Your task to perform on an android device: Show me popular games on the Play Store Image 0: 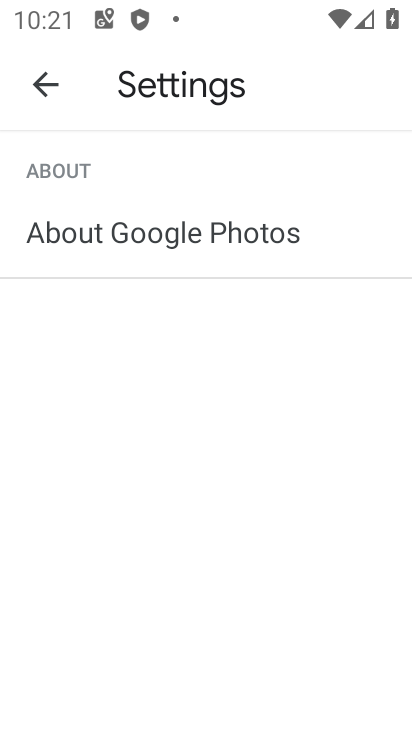
Step 0: press home button
Your task to perform on an android device: Show me popular games on the Play Store Image 1: 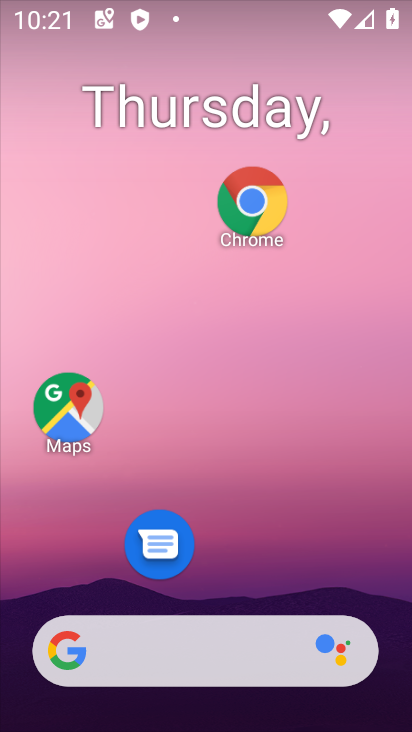
Step 1: drag from (220, 589) to (218, 99)
Your task to perform on an android device: Show me popular games on the Play Store Image 2: 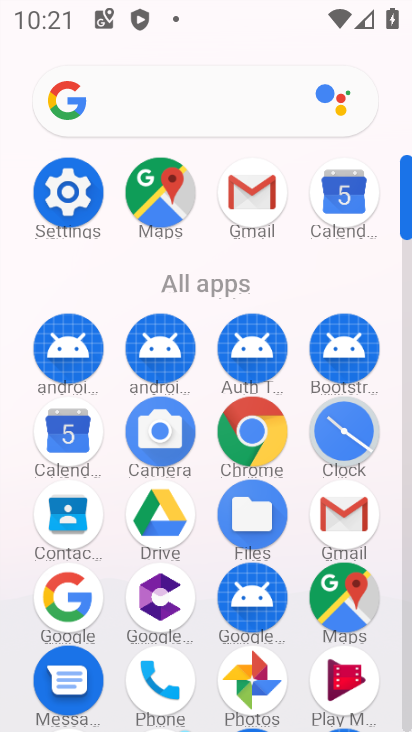
Step 2: drag from (203, 629) to (213, 299)
Your task to perform on an android device: Show me popular games on the Play Store Image 3: 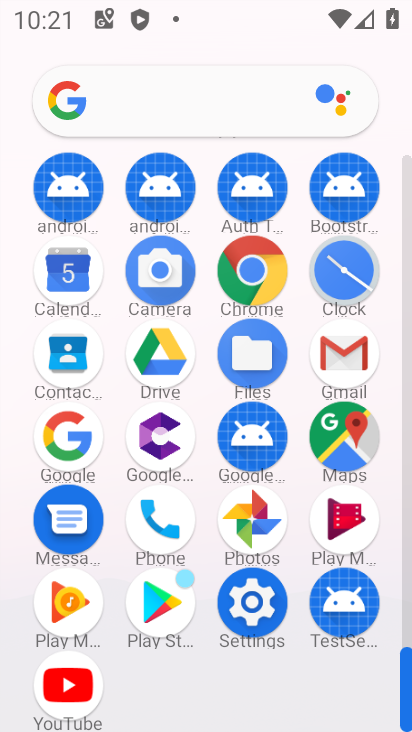
Step 3: click (160, 600)
Your task to perform on an android device: Show me popular games on the Play Store Image 4: 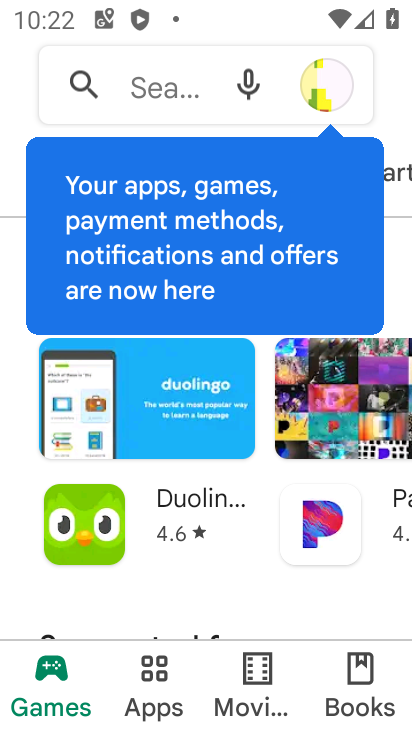
Step 4: drag from (166, 578) to (173, 189)
Your task to perform on an android device: Show me popular games on the Play Store Image 5: 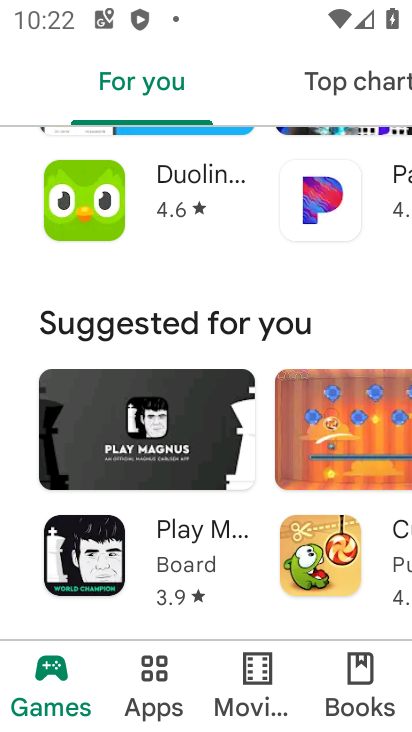
Step 5: drag from (162, 562) to (177, 194)
Your task to perform on an android device: Show me popular games on the Play Store Image 6: 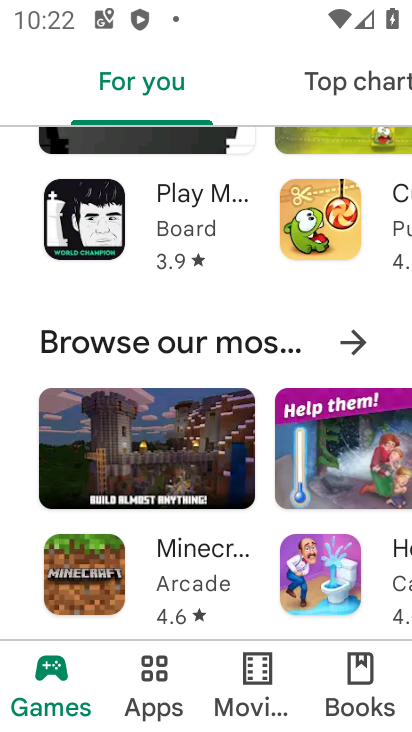
Step 6: drag from (140, 600) to (140, 231)
Your task to perform on an android device: Show me popular games on the Play Store Image 7: 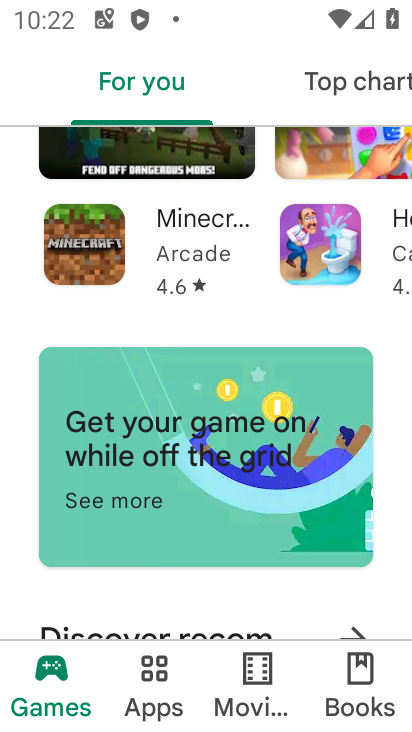
Step 7: drag from (136, 615) to (150, 267)
Your task to perform on an android device: Show me popular games on the Play Store Image 8: 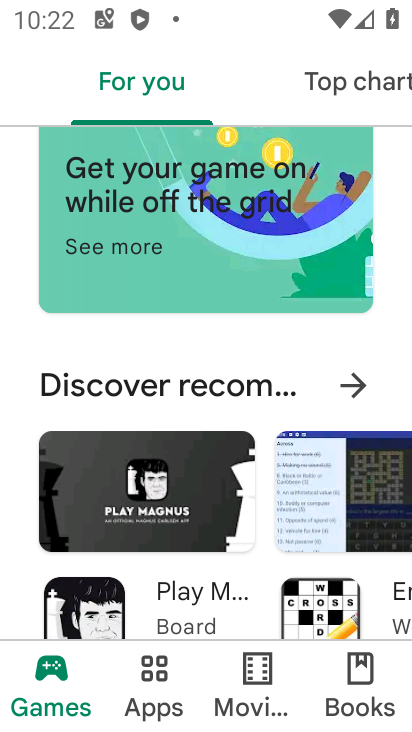
Step 8: drag from (18, 555) to (40, 191)
Your task to perform on an android device: Show me popular games on the Play Store Image 9: 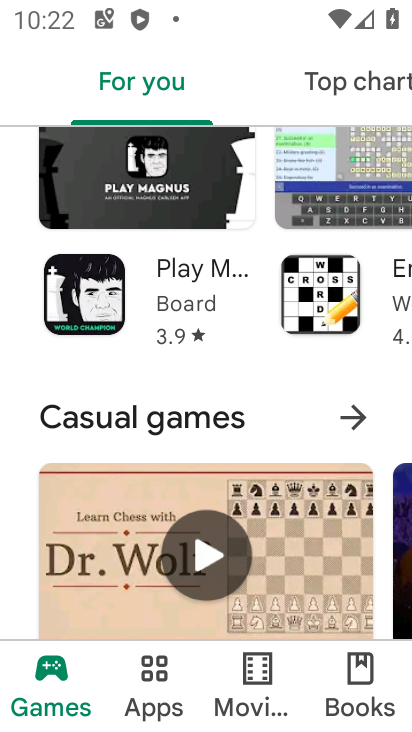
Step 9: drag from (18, 495) to (14, 88)
Your task to perform on an android device: Show me popular games on the Play Store Image 10: 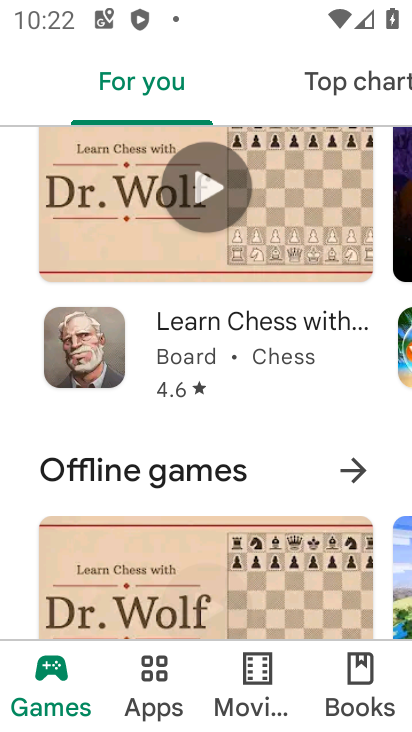
Step 10: drag from (21, 585) to (15, 135)
Your task to perform on an android device: Show me popular games on the Play Store Image 11: 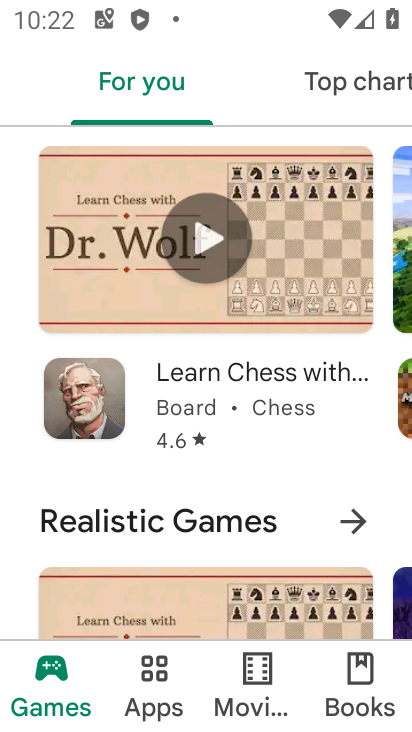
Step 11: drag from (27, 152) to (27, 491)
Your task to perform on an android device: Show me popular games on the Play Store Image 12: 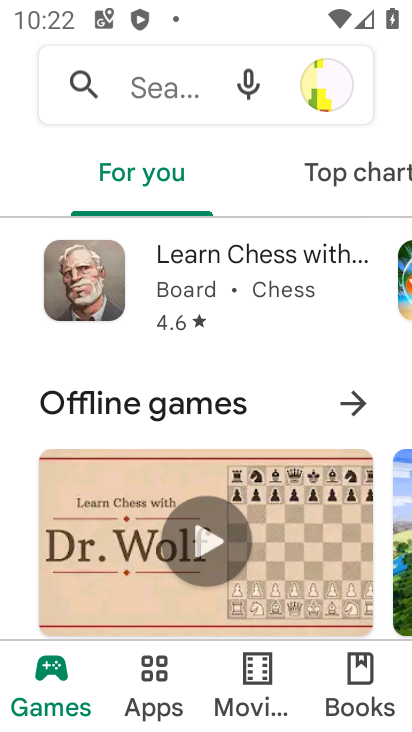
Step 12: drag from (16, 235) to (21, 598)
Your task to perform on an android device: Show me popular games on the Play Store Image 13: 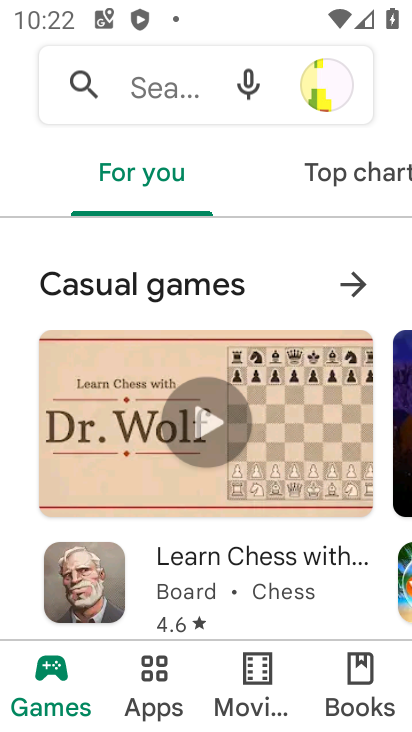
Step 13: drag from (24, 249) to (22, 605)
Your task to perform on an android device: Show me popular games on the Play Store Image 14: 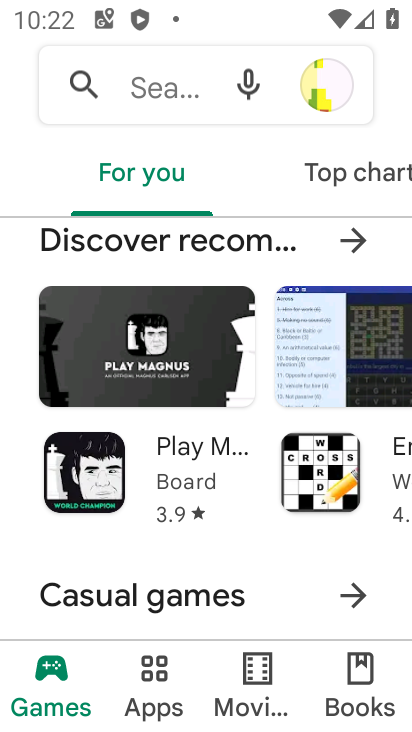
Step 14: drag from (17, 238) to (7, 643)
Your task to perform on an android device: Show me popular games on the Play Store Image 15: 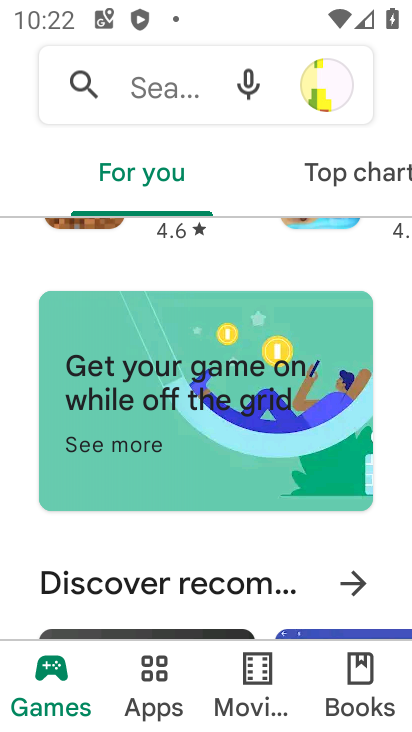
Step 15: drag from (19, 229) to (24, 581)
Your task to perform on an android device: Show me popular games on the Play Store Image 16: 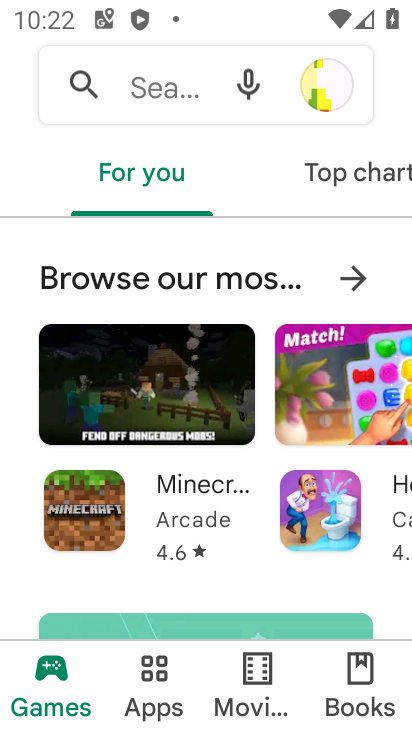
Step 16: drag from (21, 257) to (20, 616)
Your task to perform on an android device: Show me popular games on the Play Store Image 17: 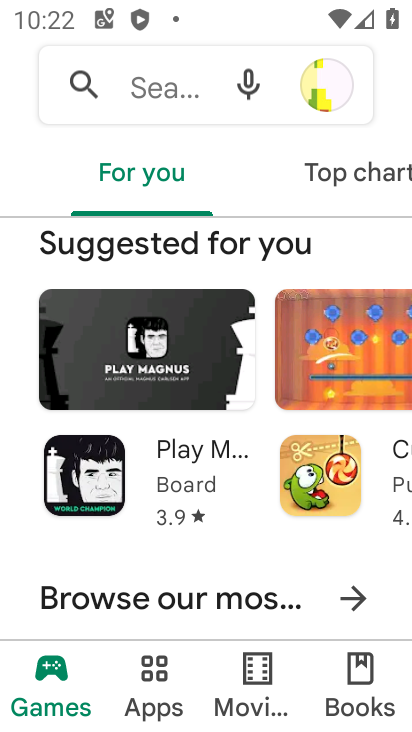
Step 17: drag from (22, 250) to (36, 460)
Your task to perform on an android device: Show me popular games on the Play Store Image 18: 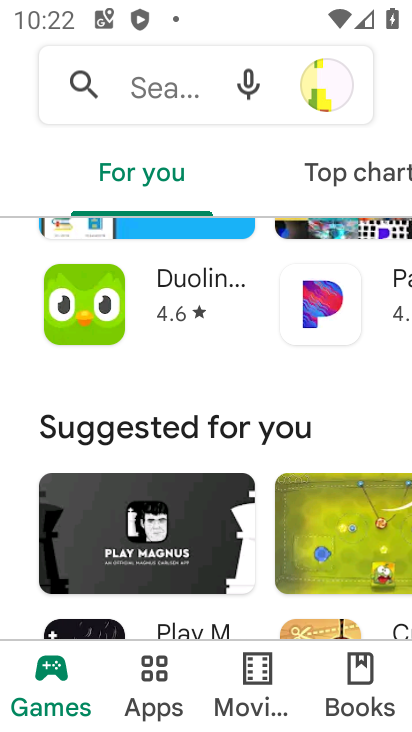
Step 18: drag from (25, 246) to (40, 582)
Your task to perform on an android device: Show me popular games on the Play Store Image 19: 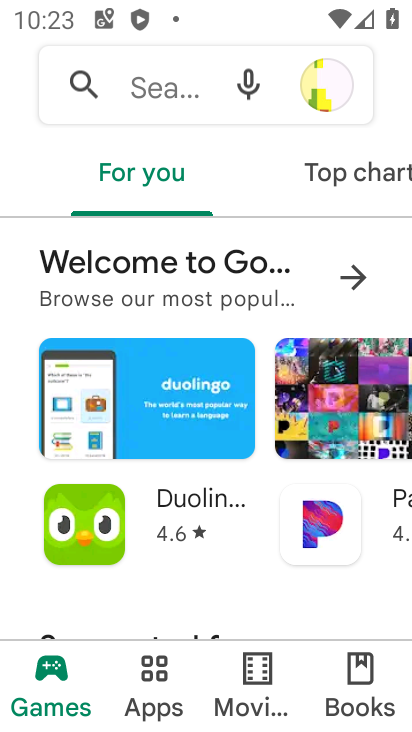
Step 19: drag from (18, 598) to (48, 166)
Your task to perform on an android device: Show me popular games on the Play Store Image 20: 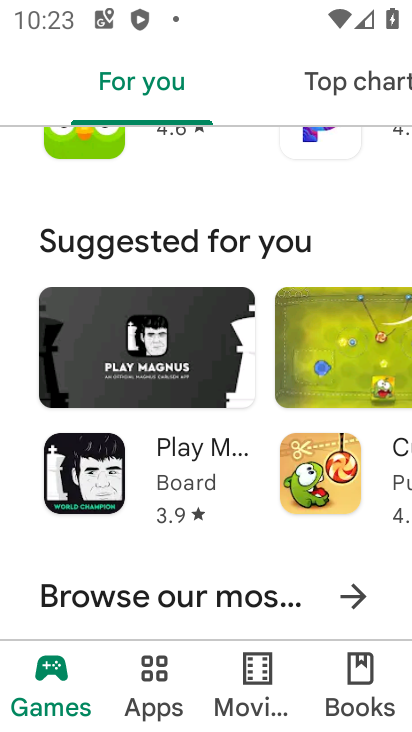
Step 20: drag from (26, 575) to (22, 158)
Your task to perform on an android device: Show me popular games on the Play Store Image 21: 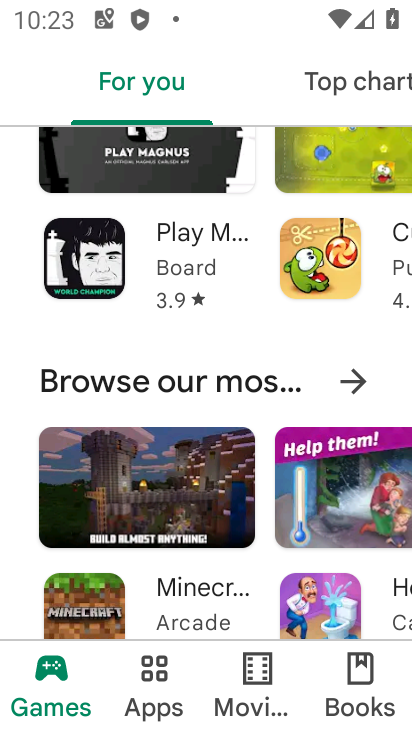
Step 21: drag from (25, 571) to (18, 159)
Your task to perform on an android device: Show me popular games on the Play Store Image 22: 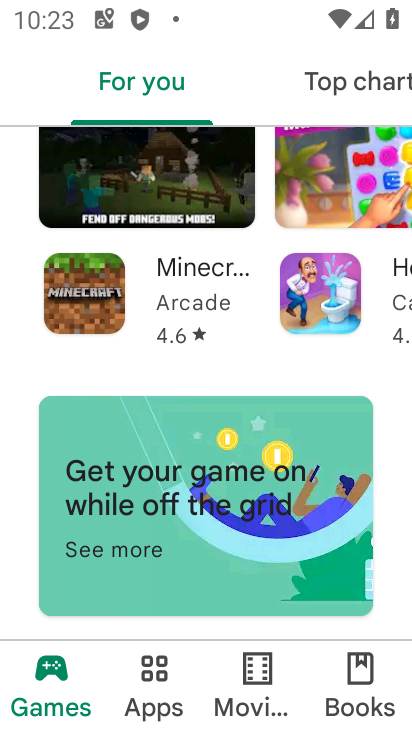
Step 22: drag from (18, 584) to (24, 97)
Your task to perform on an android device: Show me popular games on the Play Store Image 23: 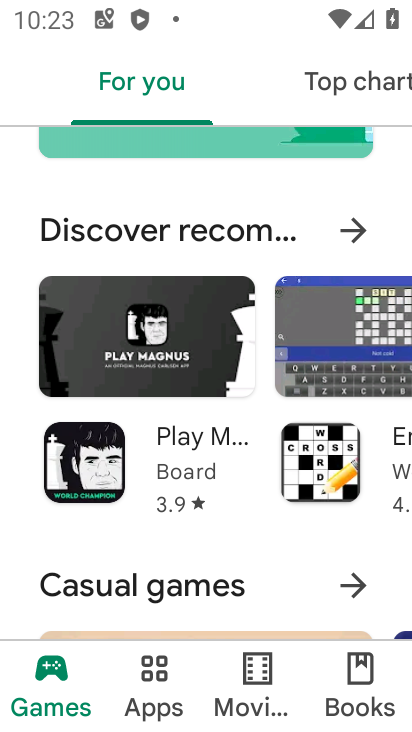
Step 23: drag from (23, 592) to (39, 146)
Your task to perform on an android device: Show me popular games on the Play Store Image 24: 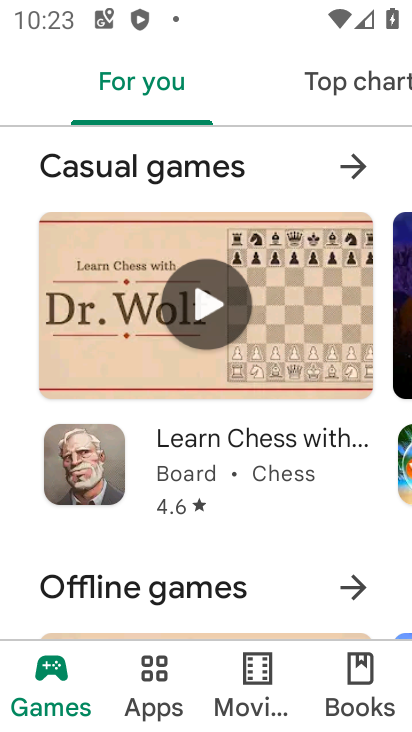
Step 24: drag from (23, 607) to (23, 137)
Your task to perform on an android device: Show me popular games on the Play Store Image 25: 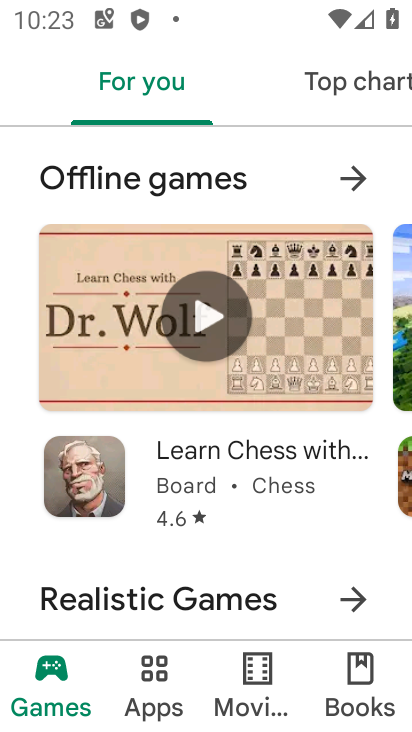
Step 25: drag from (20, 609) to (32, 99)
Your task to perform on an android device: Show me popular games on the Play Store Image 26: 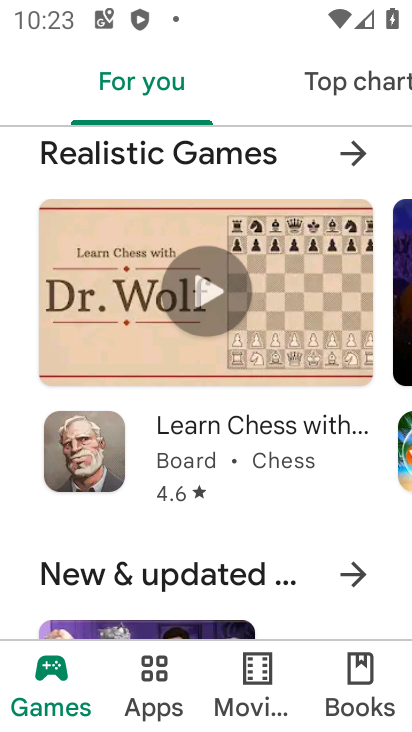
Step 26: drag from (19, 588) to (13, 104)
Your task to perform on an android device: Show me popular games on the Play Store Image 27: 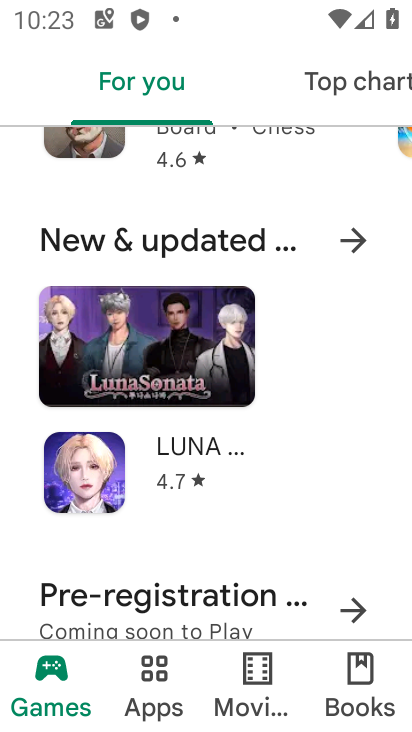
Step 27: drag from (17, 142) to (22, 593)
Your task to perform on an android device: Show me popular games on the Play Store Image 28: 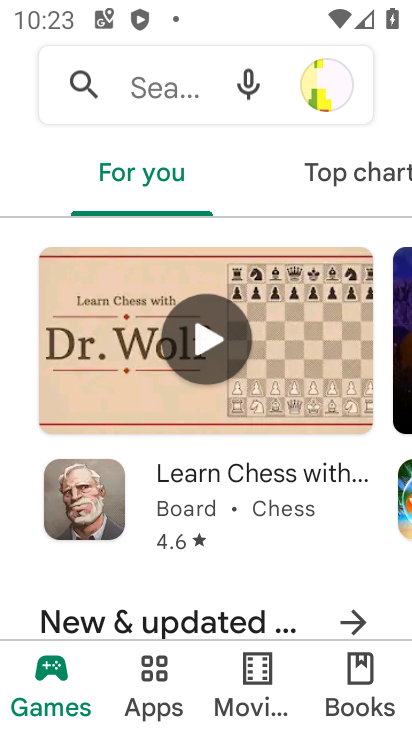
Step 28: drag from (22, 229) to (37, 672)
Your task to perform on an android device: Show me popular games on the Play Store Image 29: 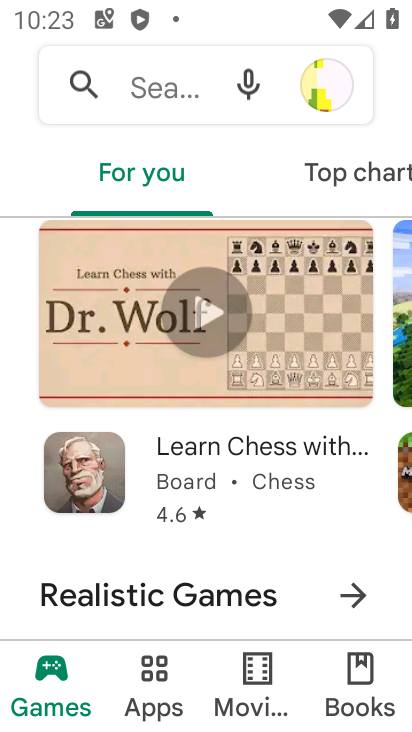
Step 29: drag from (18, 238) to (14, 662)
Your task to perform on an android device: Show me popular games on the Play Store Image 30: 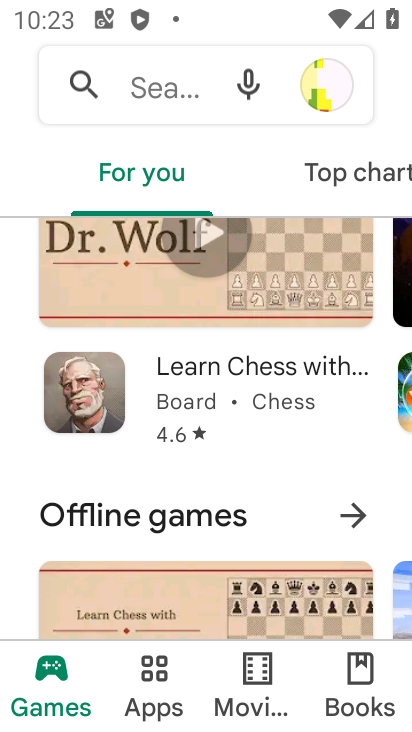
Step 30: drag from (22, 233) to (48, 608)
Your task to perform on an android device: Show me popular games on the Play Store Image 31: 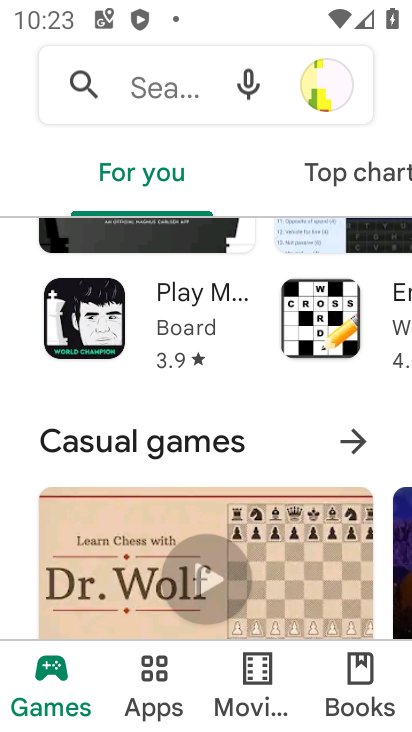
Step 31: drag from (16, 245) to (33, 632)
Your task to perform on an android device: Show me popular games on the Play Store Image 32: 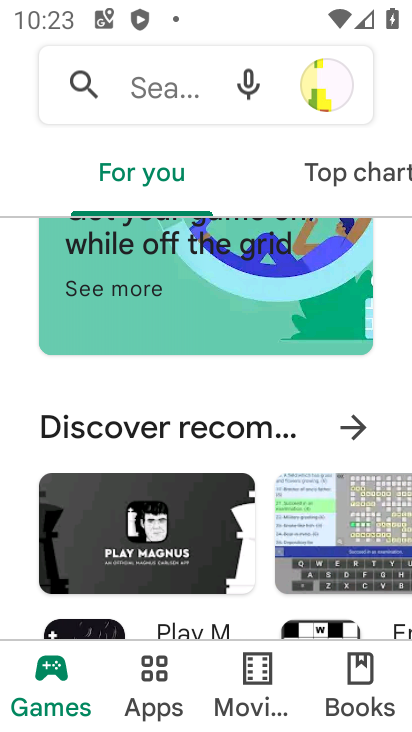
Step 32: drag from (4, 250) to (21, 677)
Your task to perform on an android device: Show me popular games on the Play Store Image 33: 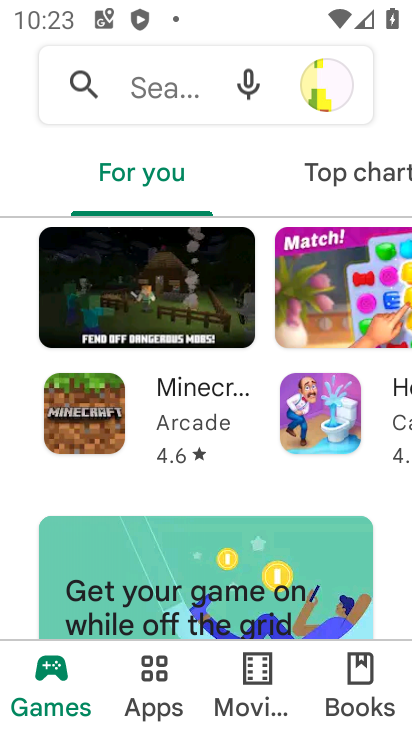
Step 33: drag from (22, 252) to (58, 632)
Your task to perform on an android device: Show me popular games on the Play Store Image 34: 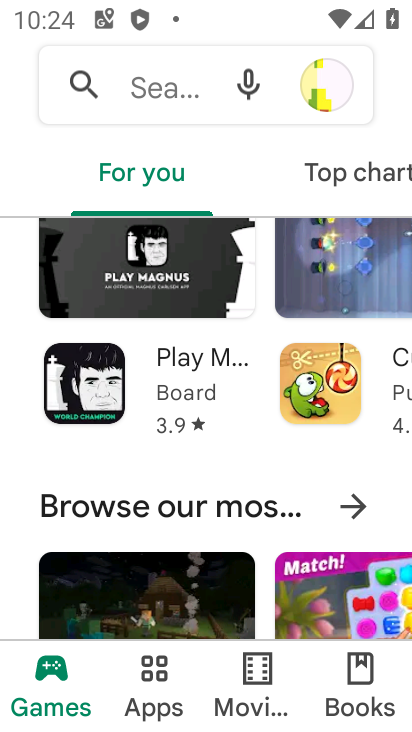
Step 34: click (351, 507)
Your task to perform on an android device: Show me popular games on the Play Store Image 35: 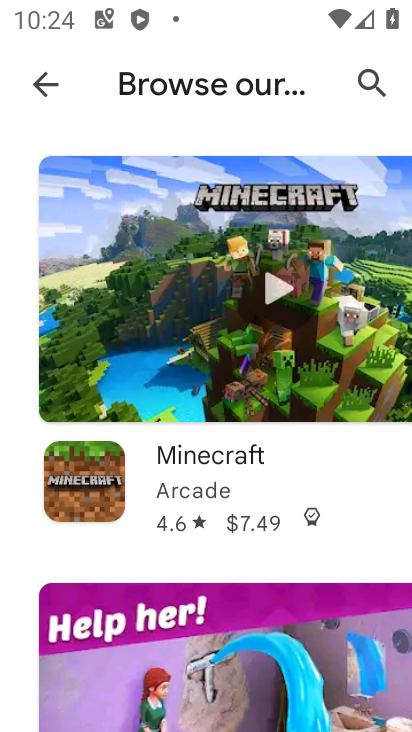
Step 35: task complete